Your task to perform on an android device: toggle data saver in the chrome app Image 0: 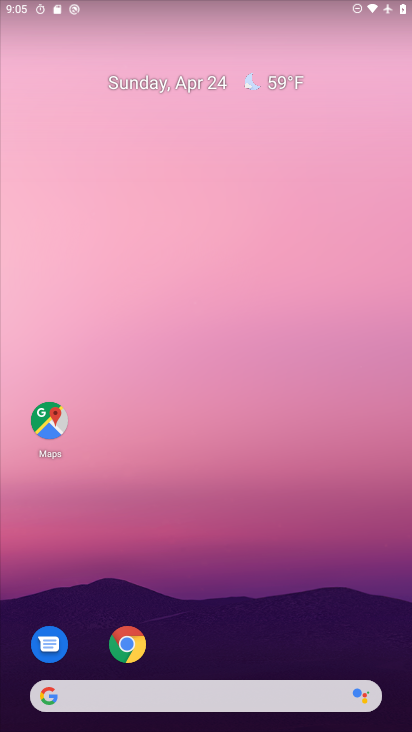
Step 0: click (124, 638)
Your task to perform on an android device: toggle data saver in the chrome app Image 1: 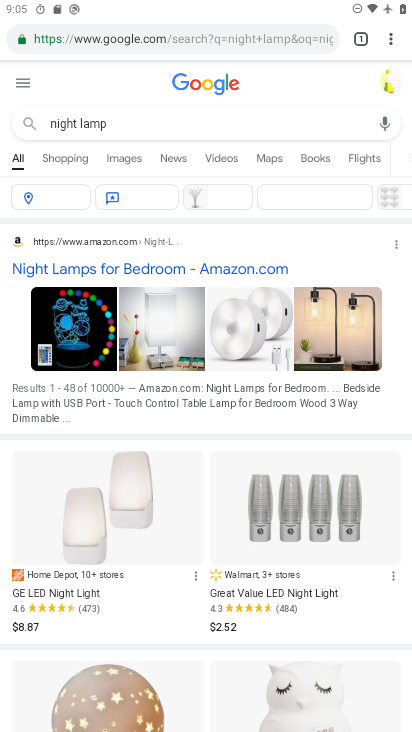
Step 1: click (388, 33)
Your task to perform on an android device: toggle data saver in the chrome app Image 2: 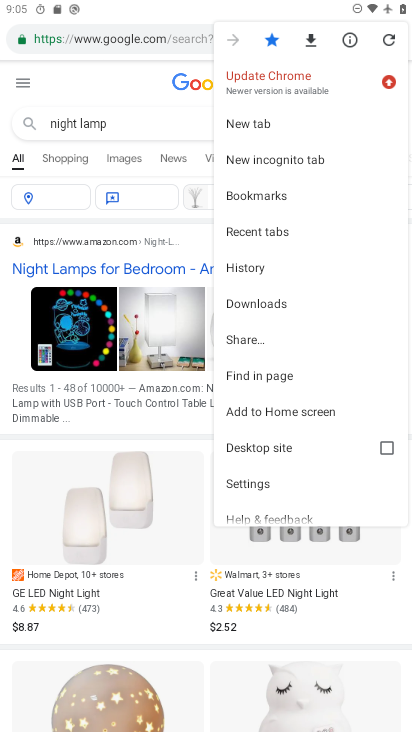
Step 2: click (274, 483)
Your task to perform on an android device: toggle data saver in the chrome app Image 3: 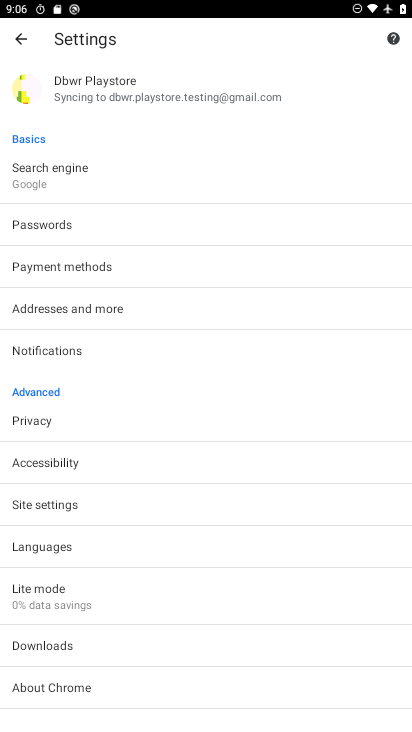
Step 3: click (81, 587)
Your task to perform on an android device: toggle data saver in the chrome app Image 4: 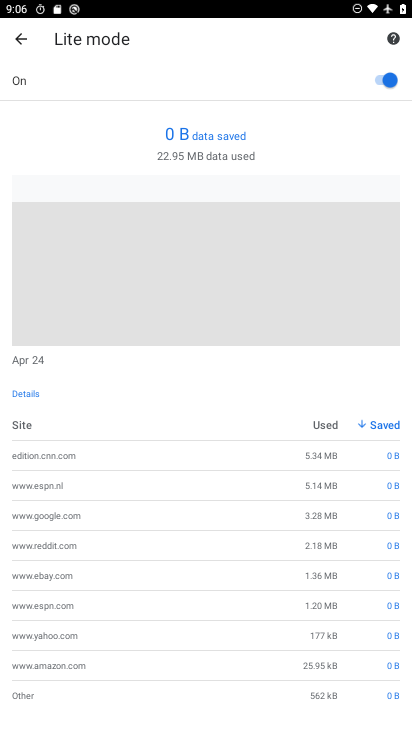
Step 4: click (379, 76)
Your task to perform on an android device: toggle data saver in the chrome app Image 5: 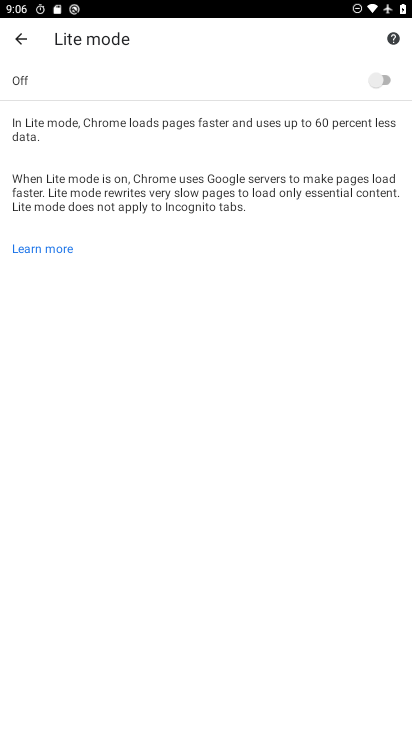
Step 5: task complete